Your task to perform on an android device: star an email in the gmail app Image 0: 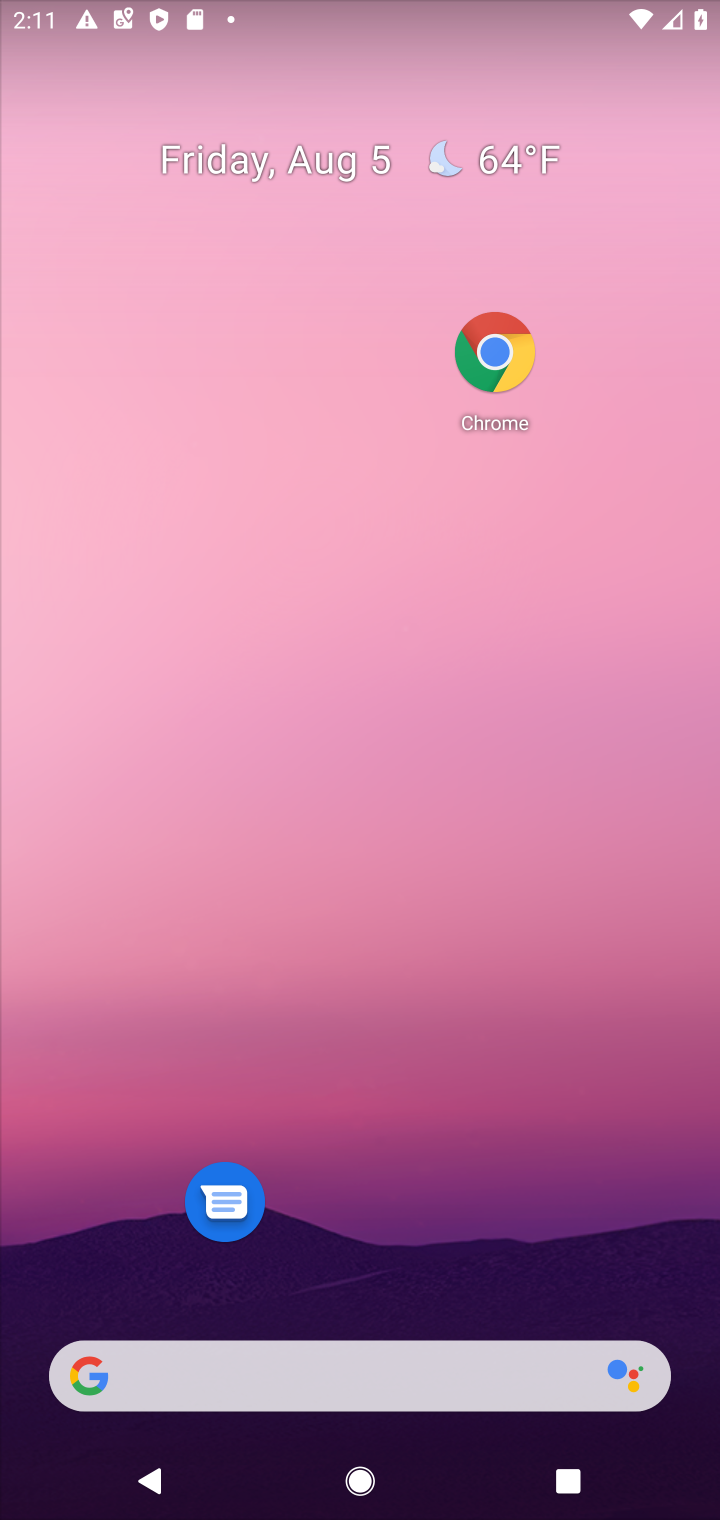
Step 0: click (518, 160)
Your task to perform on an android device: star an email in the gmail app Image 1: 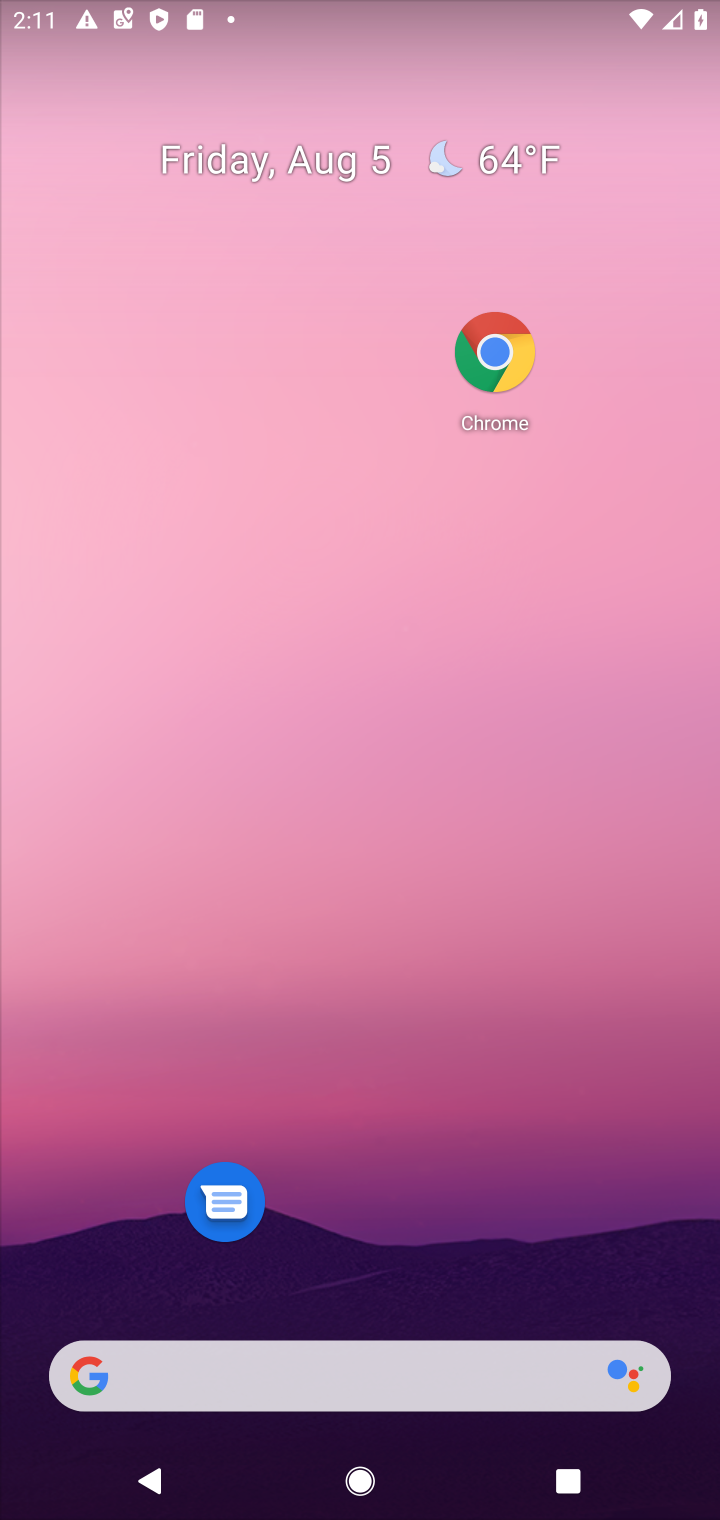
Step 1: press home button
Your task to perform on an android device: star an email in the gmail app Image 2: 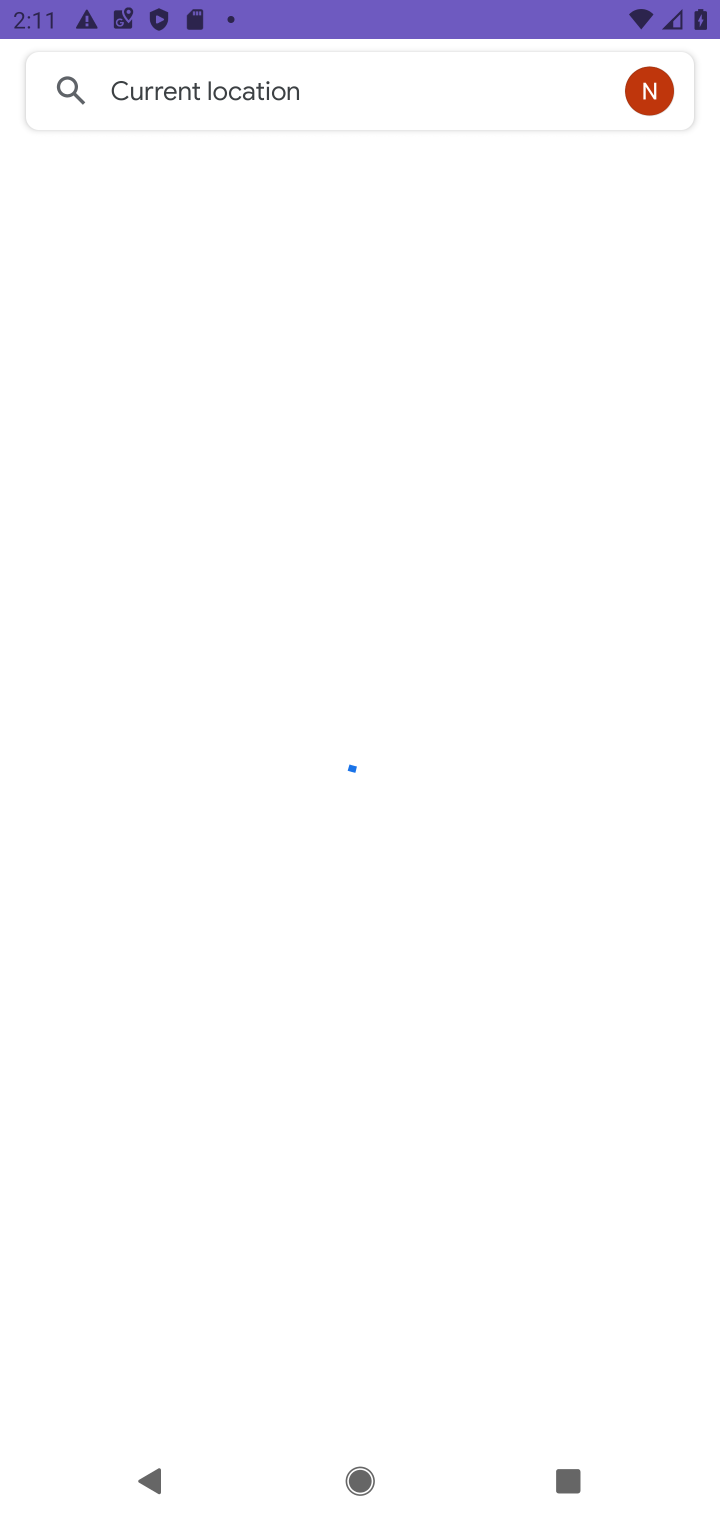
Step 2: press home button
Your task to perform on an android device: star an email in the gmail app Image 3: 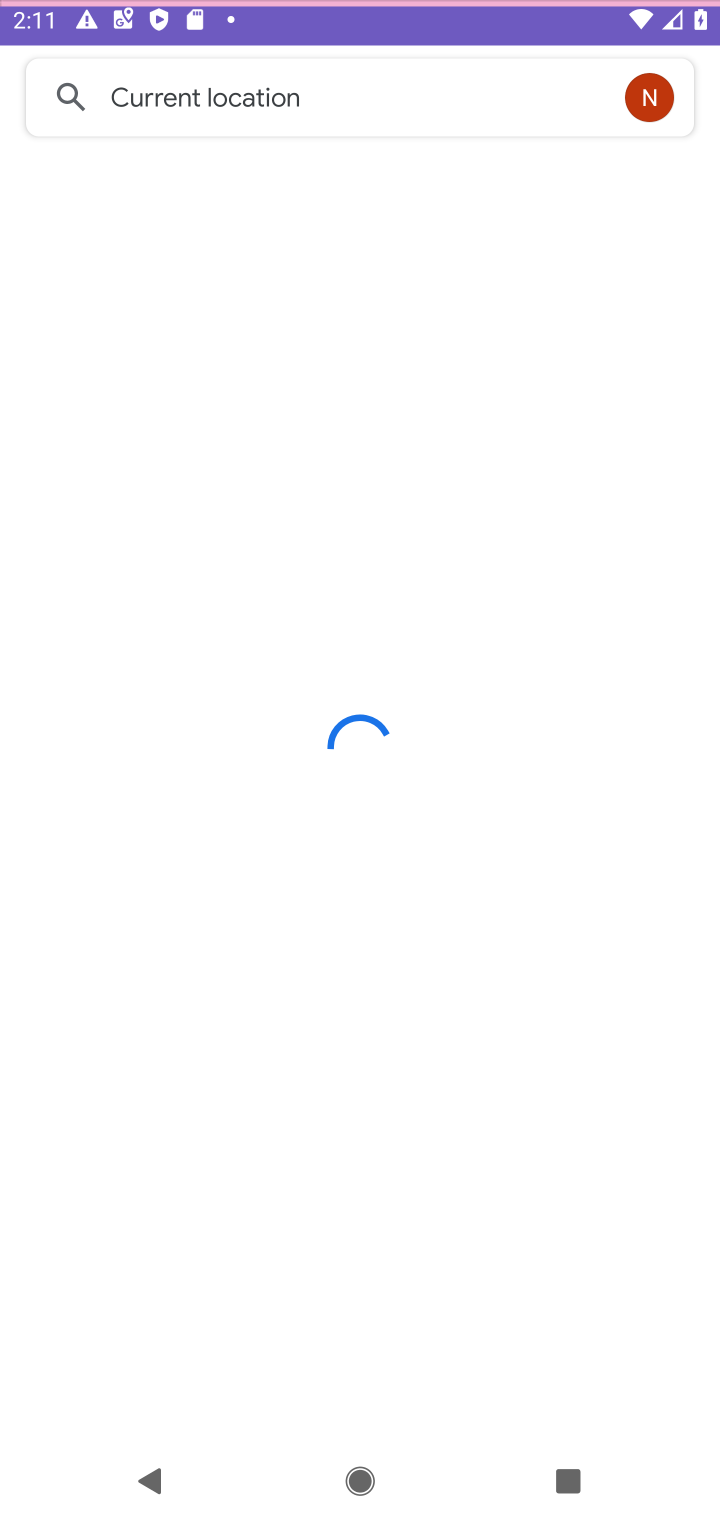
Step 3: click (441, 82)
Your task to perform on an android device: star an email in the gmail app Image 4: 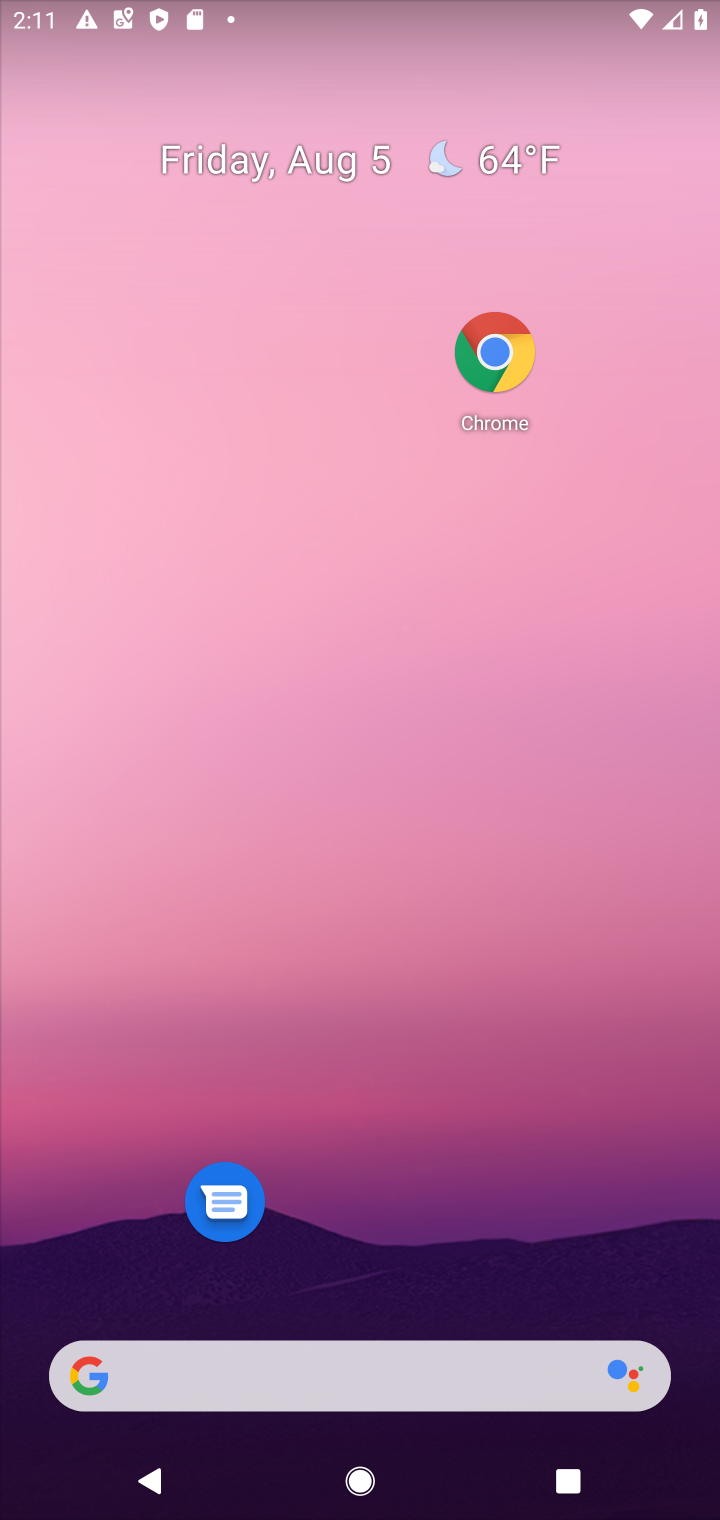
Step 4: press home button
Your task to perform on an android device: star an email in the gmail app Image 5: 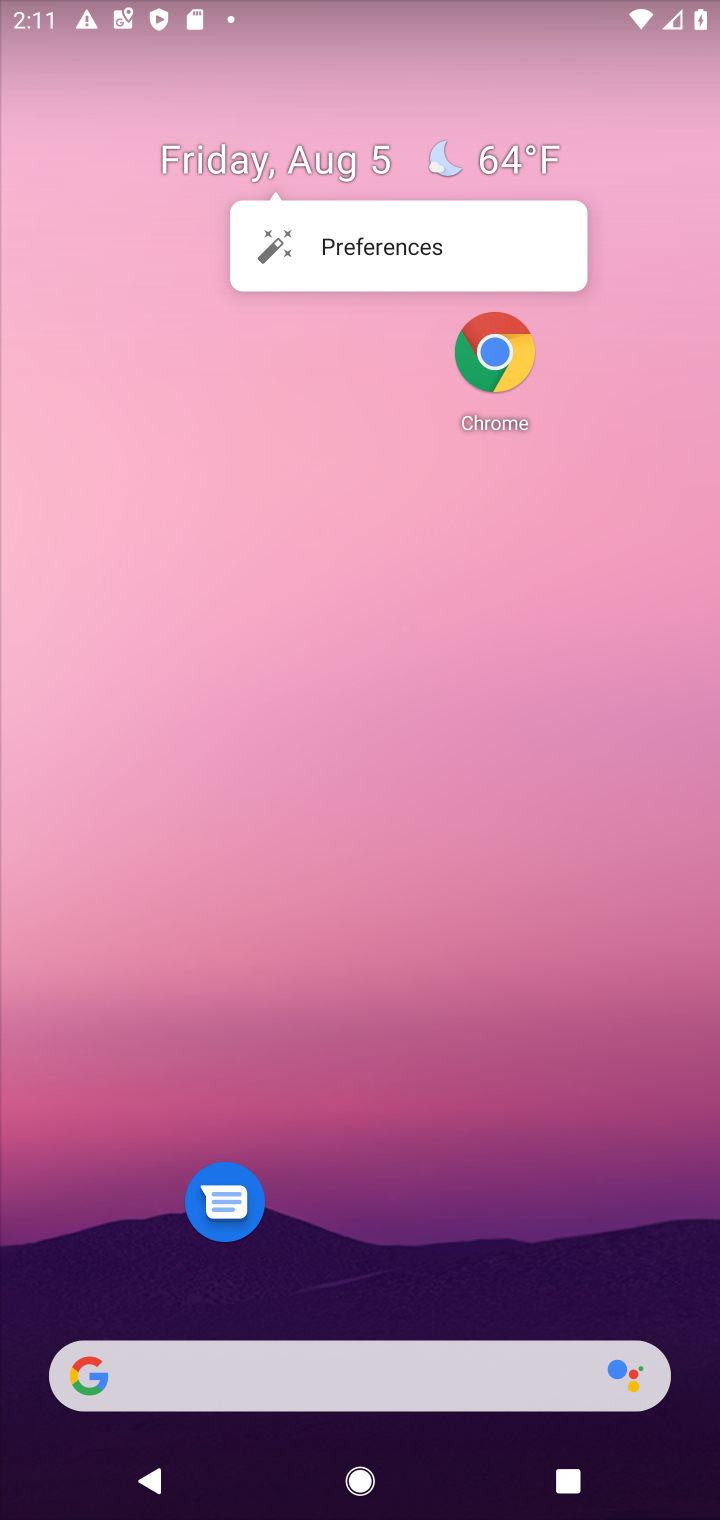
Step 5: press home button
Your task to perform on an android device: star an email in the gmail app Image 6: 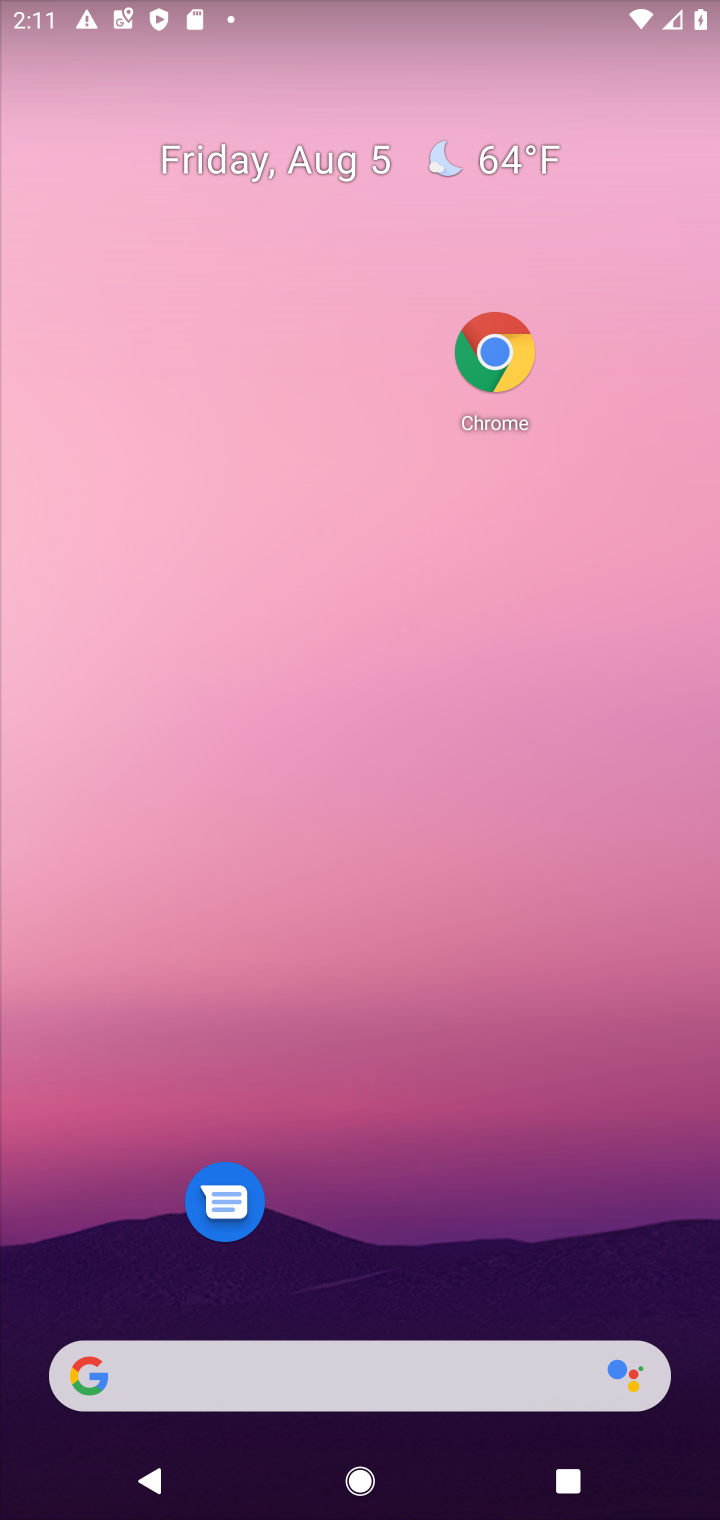
Step 6: drag from (507, 1114) to (385, 190)
Your task to perform on an android device: star an email in the gmail app Image 7: 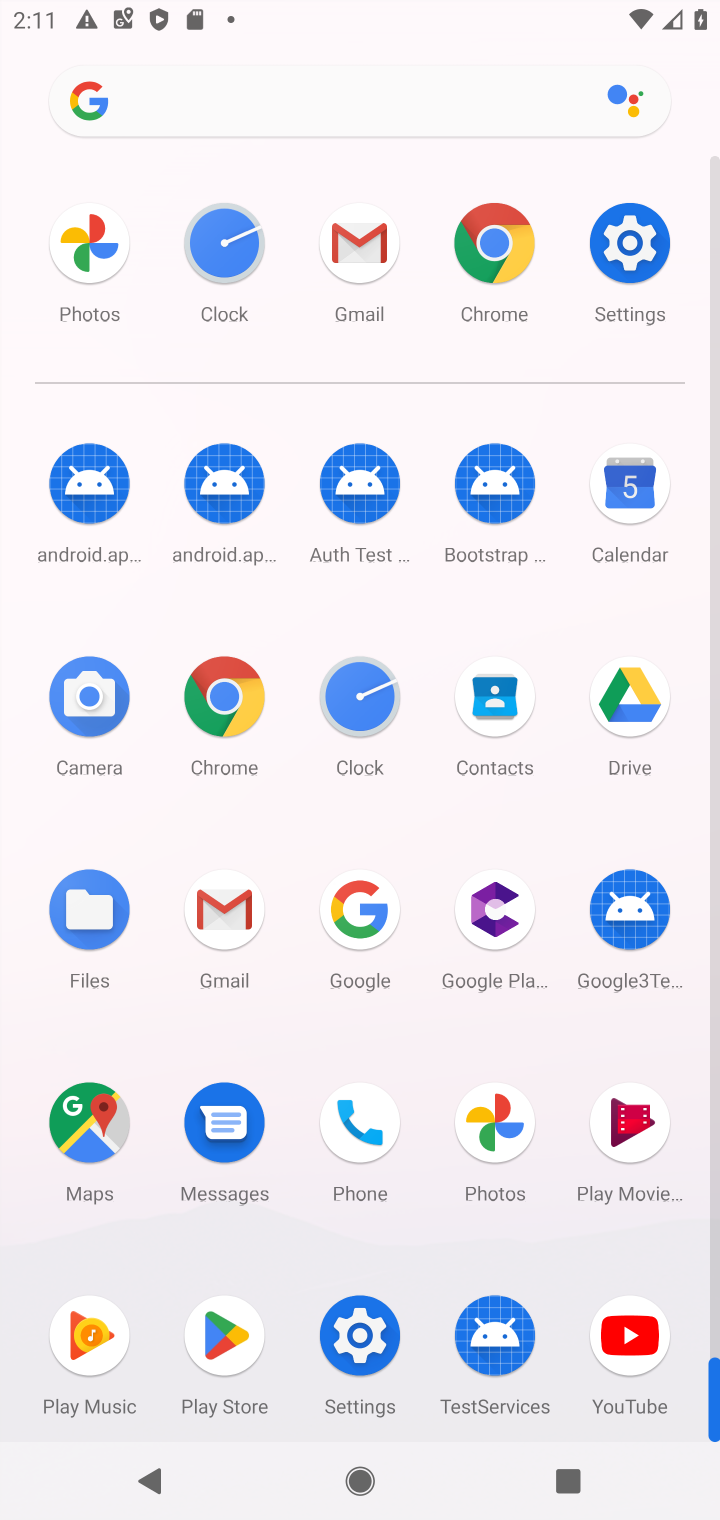
Step 7: click (236, 897)
Your task to perform on an android device: star an email in the gmail app Image 8: 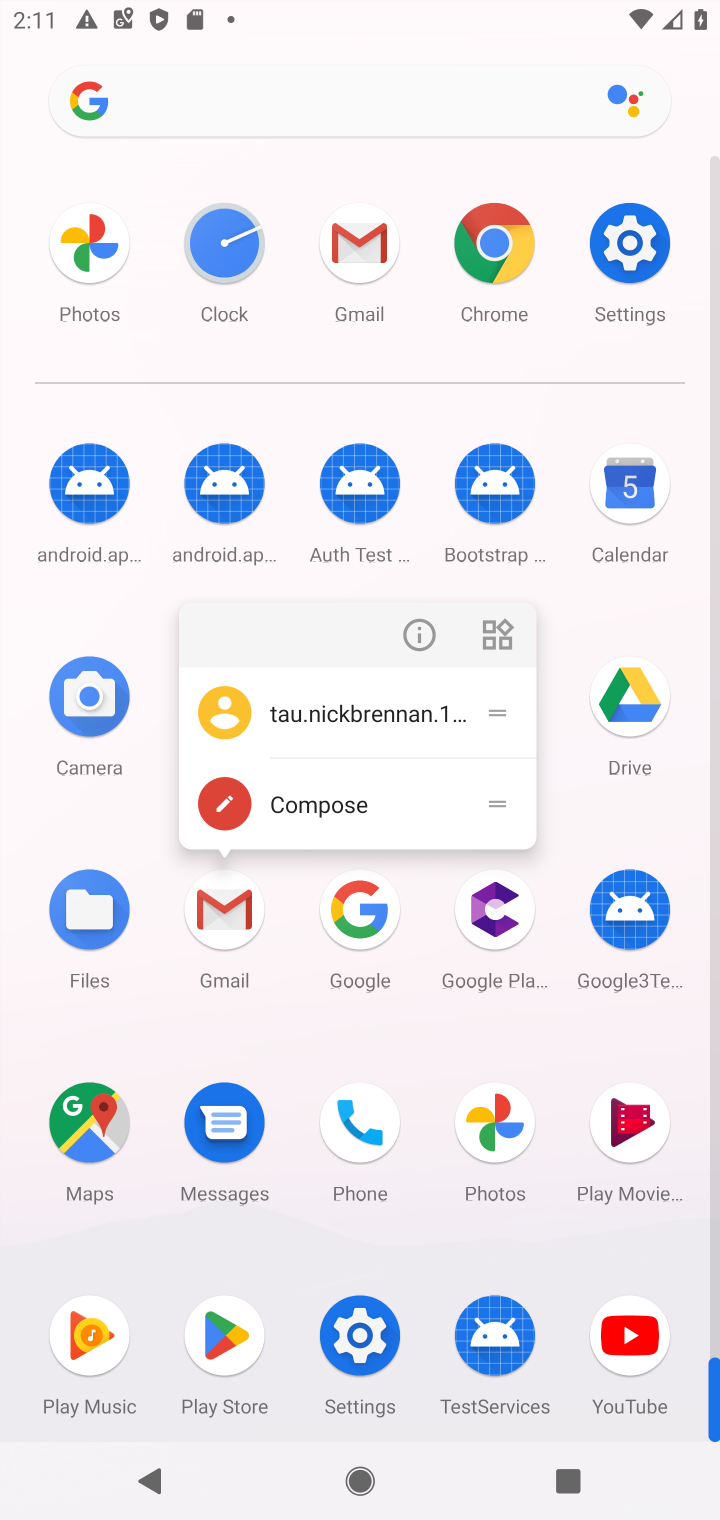
Step 8: click (220, 926)
Your task to perform on an android device: star an email in the gmail app Image 9: 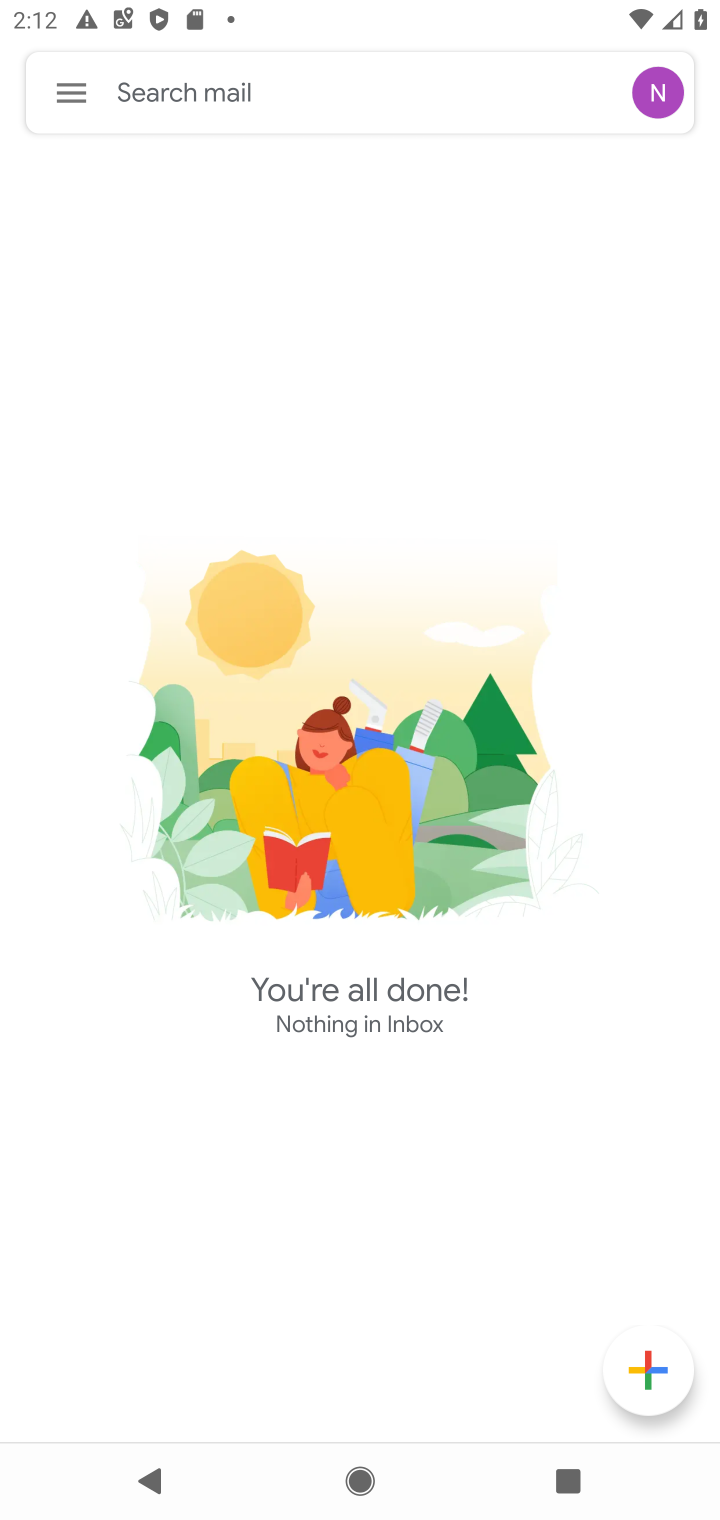
Step 9: click (66, 98)
Your task to perform on an android device: star an email in the gmail app Image 10: 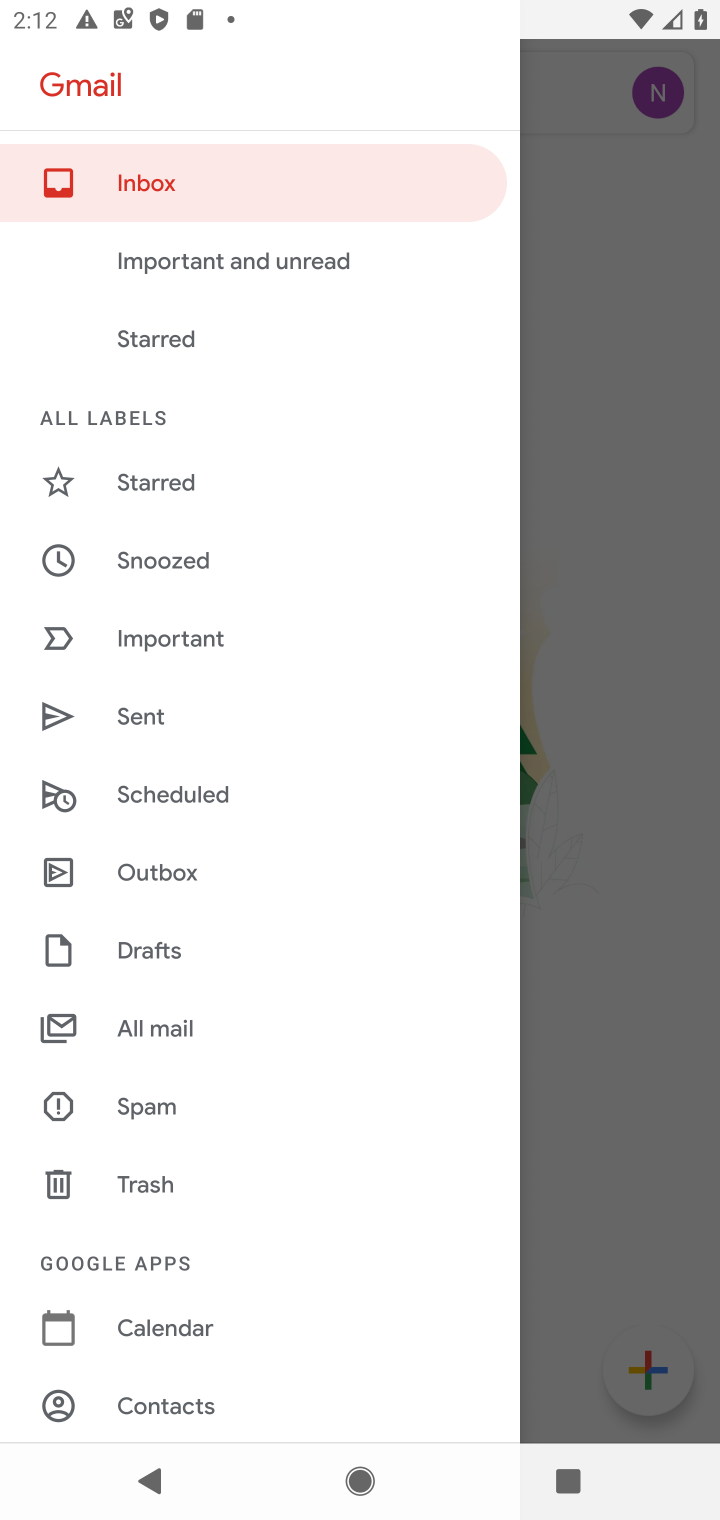
Step 10: click (207, 1026)
Your task to perform on an android device: star an email in the gmail app Image 11: 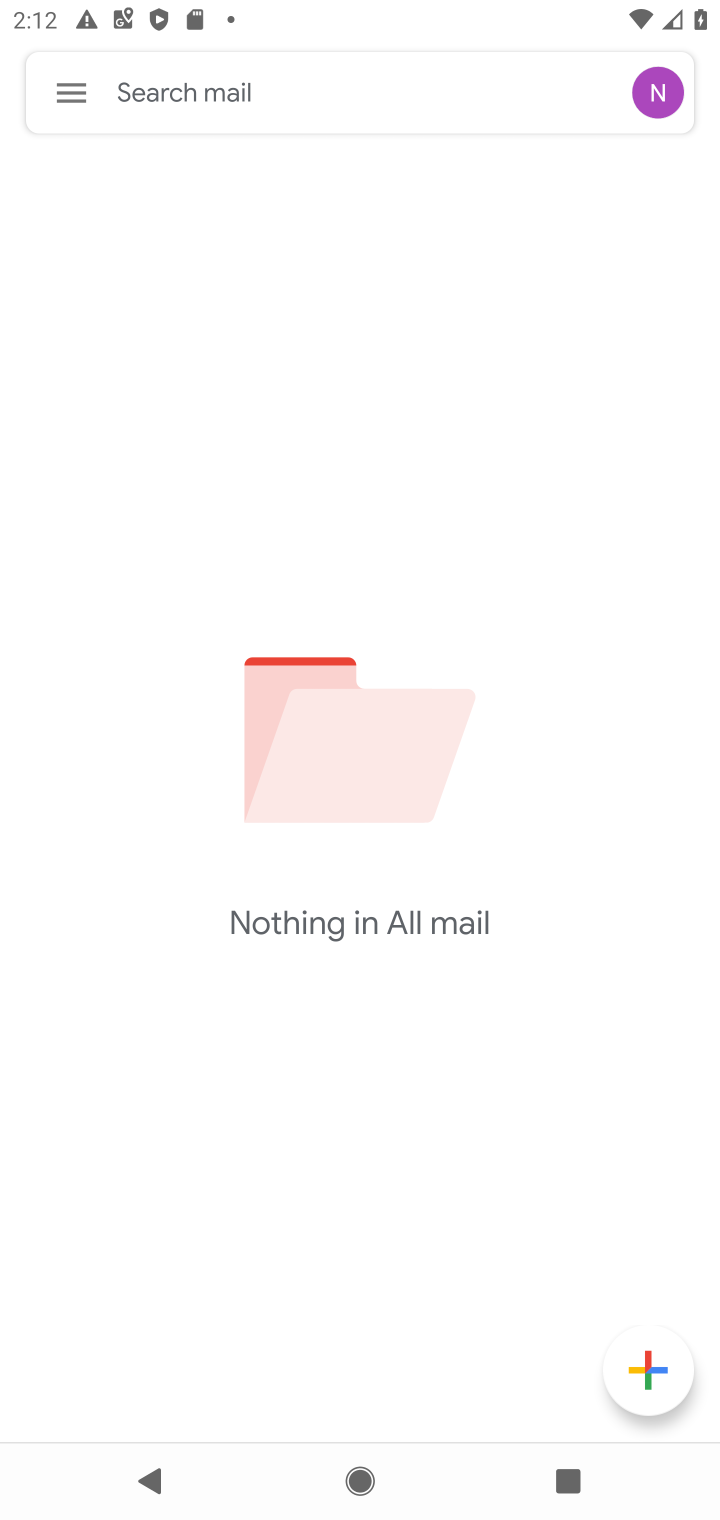
Step 11: task complete